Your task to perform on an android device: Open the phone app and click the voicemail tab. Image 0: 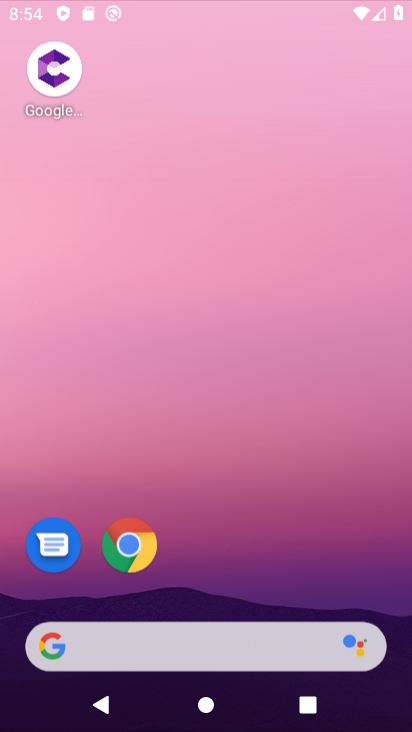
Step 0: click (362, 39)
Your task to perform on an android device: Open the phone app and click the voicemail tab. Image 1: 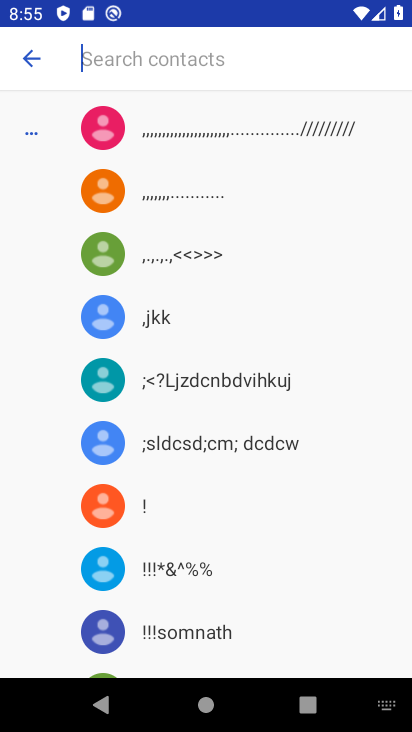
Step 1: click (33, 53)
Your task to perform on an android device: Open the phone app and click the voicemail tab. Image 2: 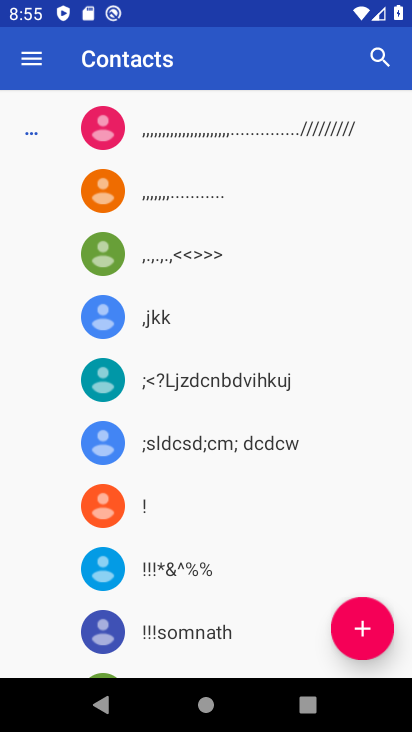
Step 2: click (113, 703)
Your task to perform on an android device: Open the phone app and click the voicemail tab. Image 3: 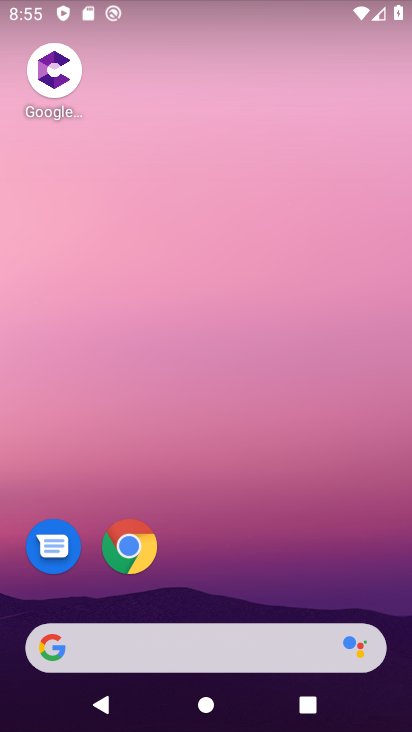
Step 3: drag from (293, 543) to (340, 73)
Your task to perform on an android device: Open the phone app and click the voicemail tab. Image 4: 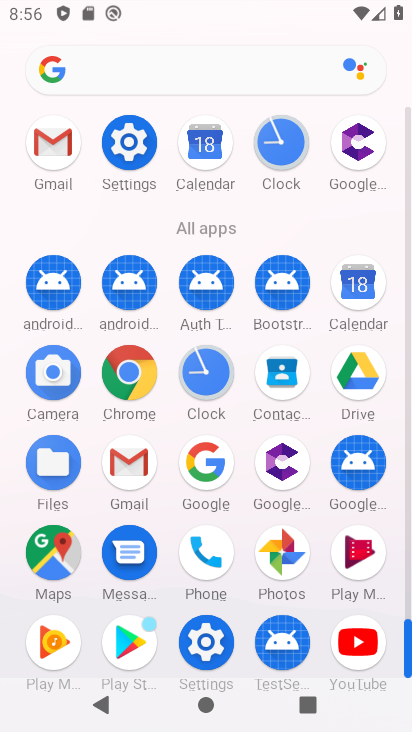
Step 4: click (197, 553)
Your task to perform on an android device: Open the phone app and click the voicemail tab. Image 5: 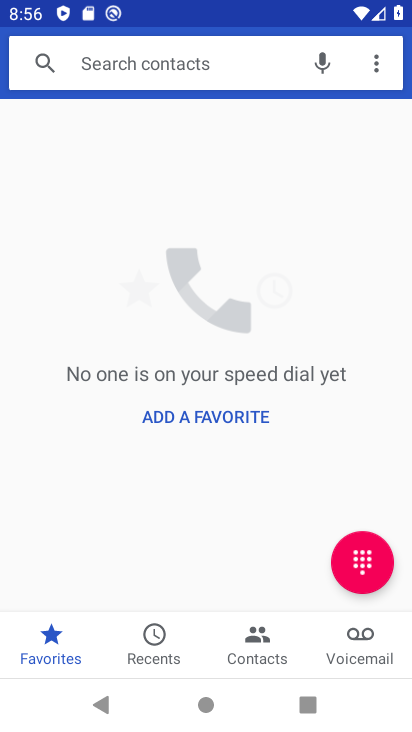
Step 5: click (361, 654)
Your task to perform on an android device: Open the phone app and click the voicemail tab. Image 6: 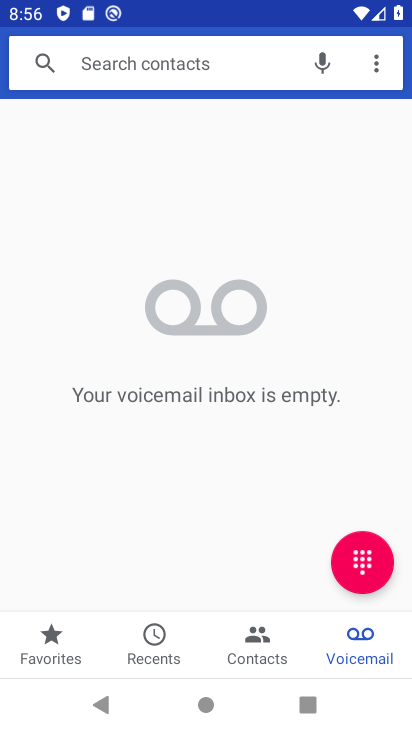
Step 6: task complete